Your task to perform on an android device: Open privacy settings Image 0: 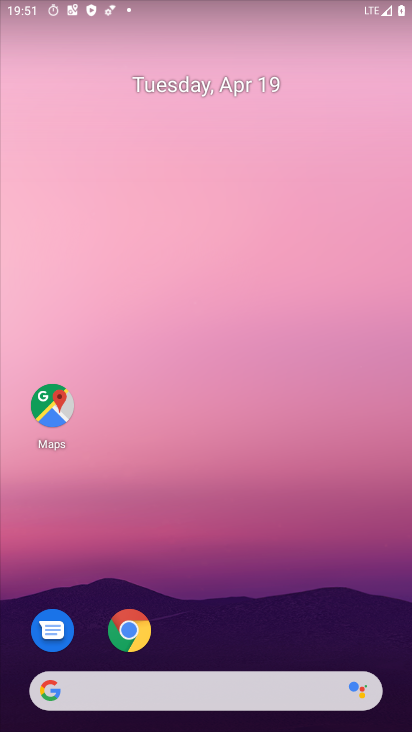
Step 0: drag from (209, 625) to (197, 112)
Your task to perform on an android device: Open privacy settings Image 1: 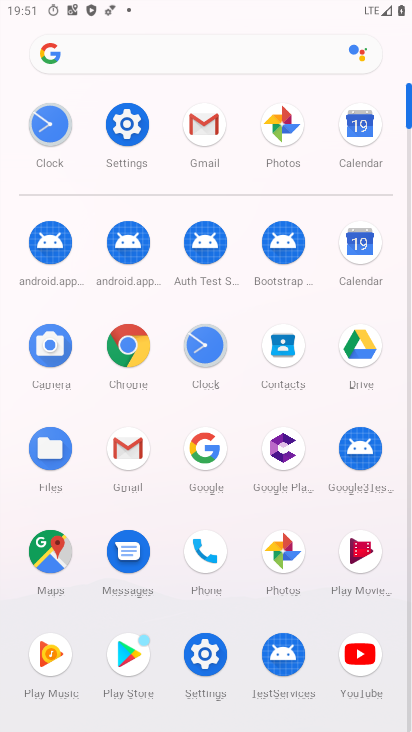
Step 1: click (139, 132)
Your task to perform on an android device: Open privacy settings Image 2: 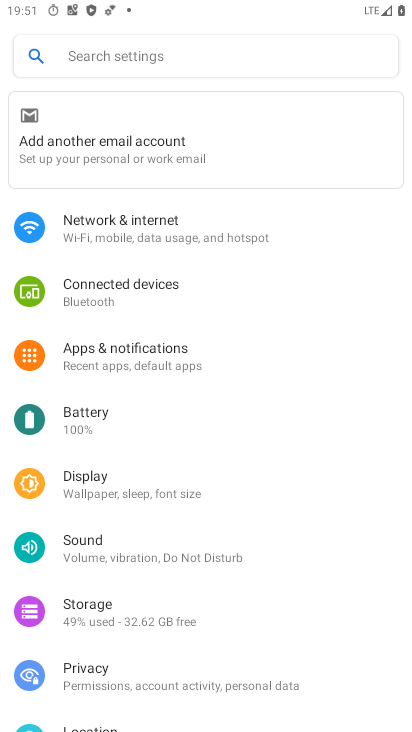
Step 2: click (157, 674)
Your task to perform on an android device: Open privacy settings Image 3: 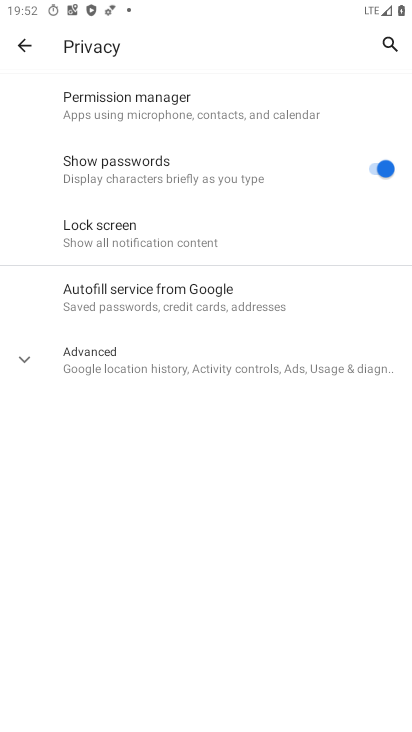
Step 3: task complete